Your task to perform on an android device: install app "Facebook" Image 0: 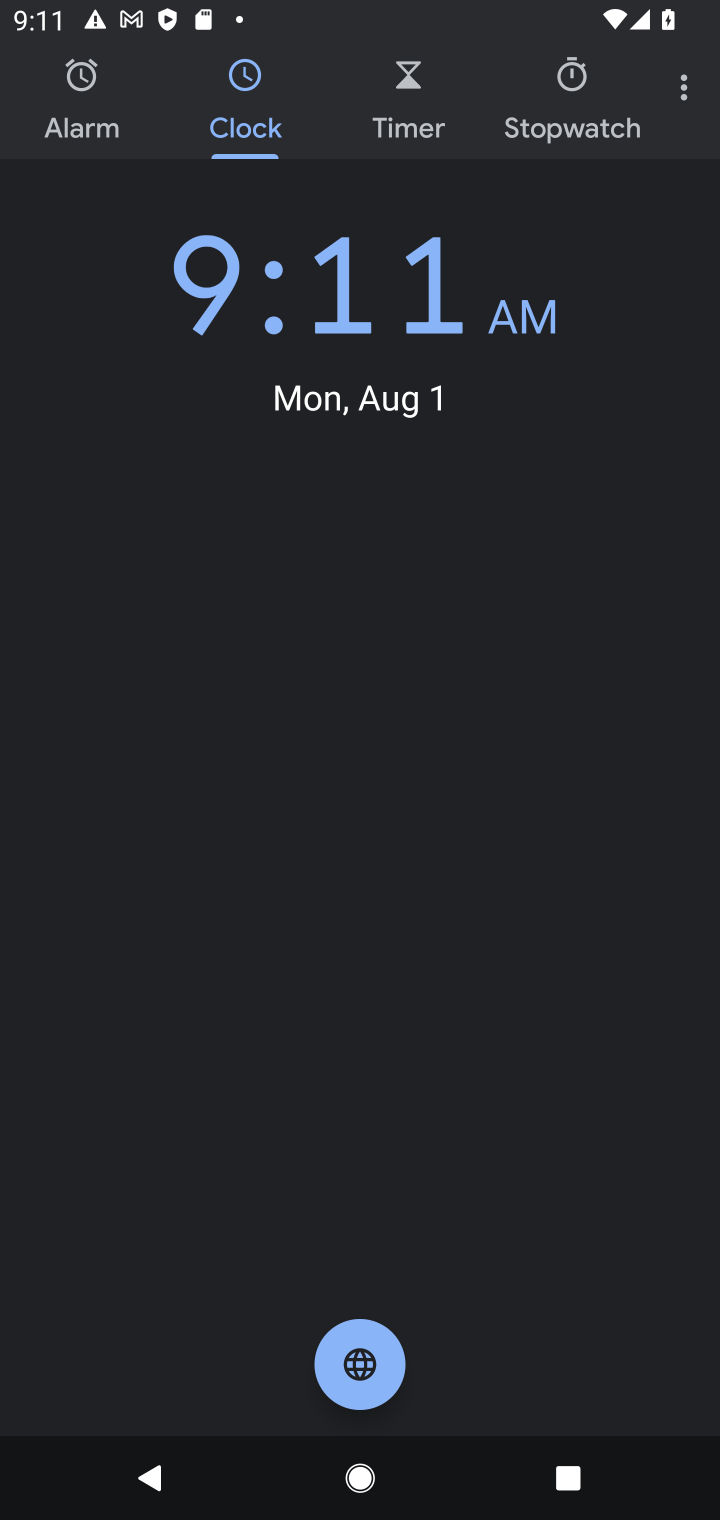
Step 0: press home button
Your task to perform on an android device: install app "Facebook" Image 1: 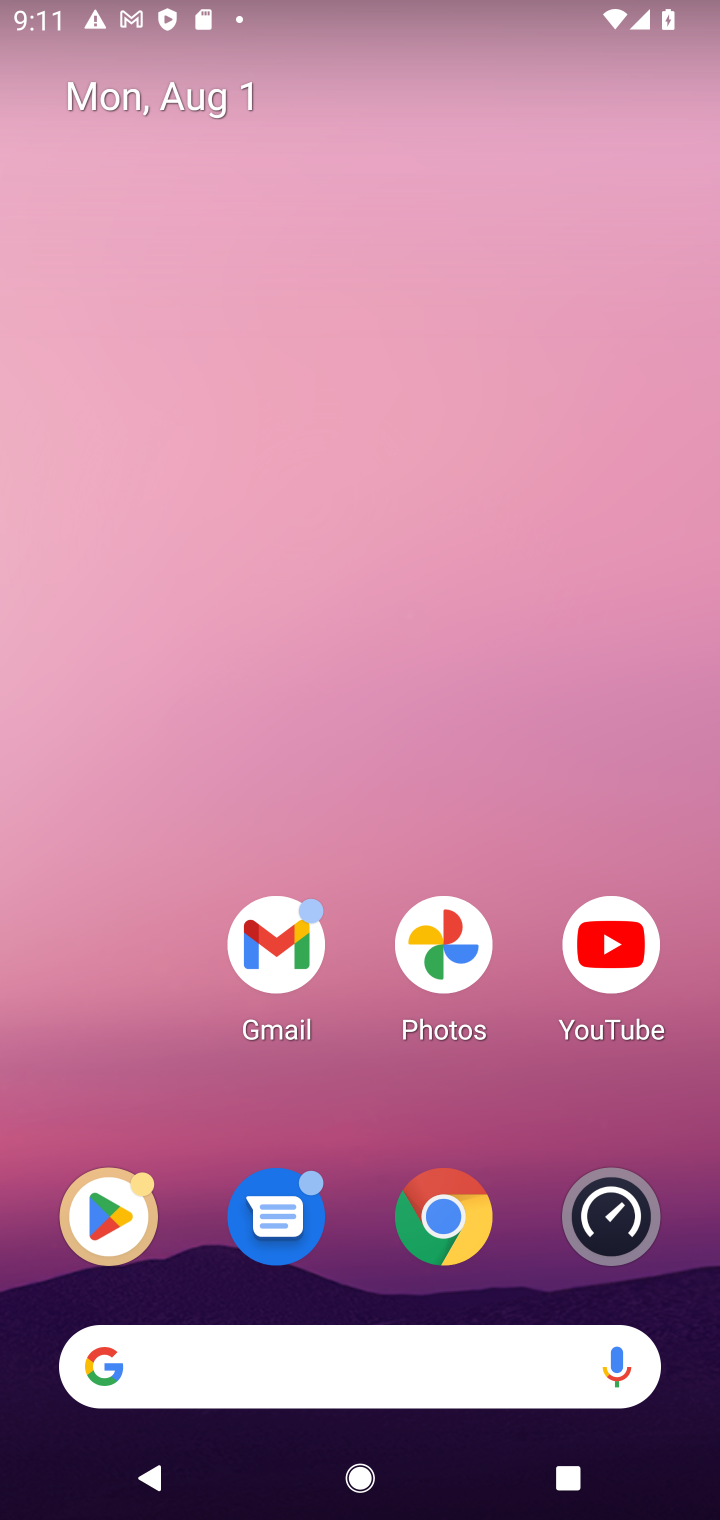
Step 1: click (119, 1233)
Your task to perform on an android device: install app "Facebook" Image 2: 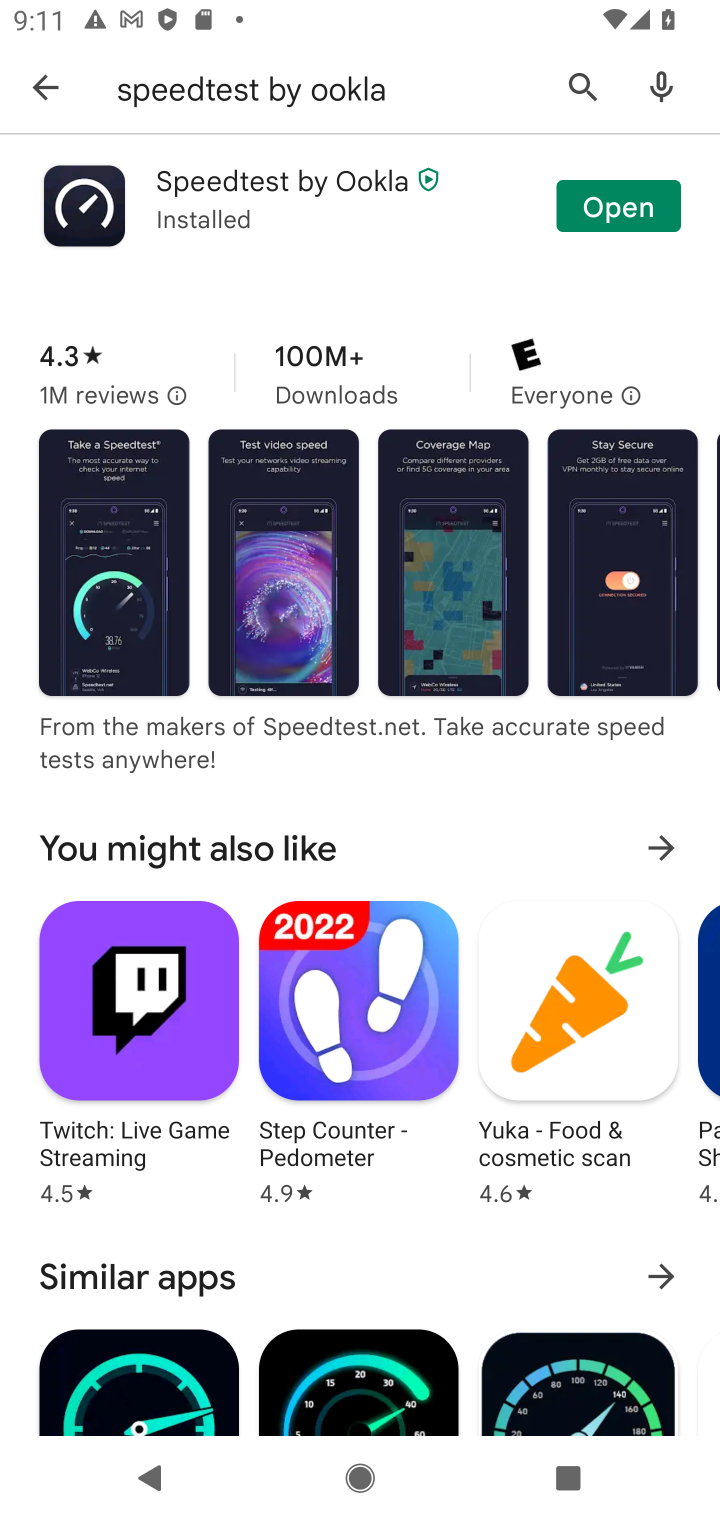
Step 2: click (571, 84)
Your task to perform on an android device: install app "Facebook" Image 3: 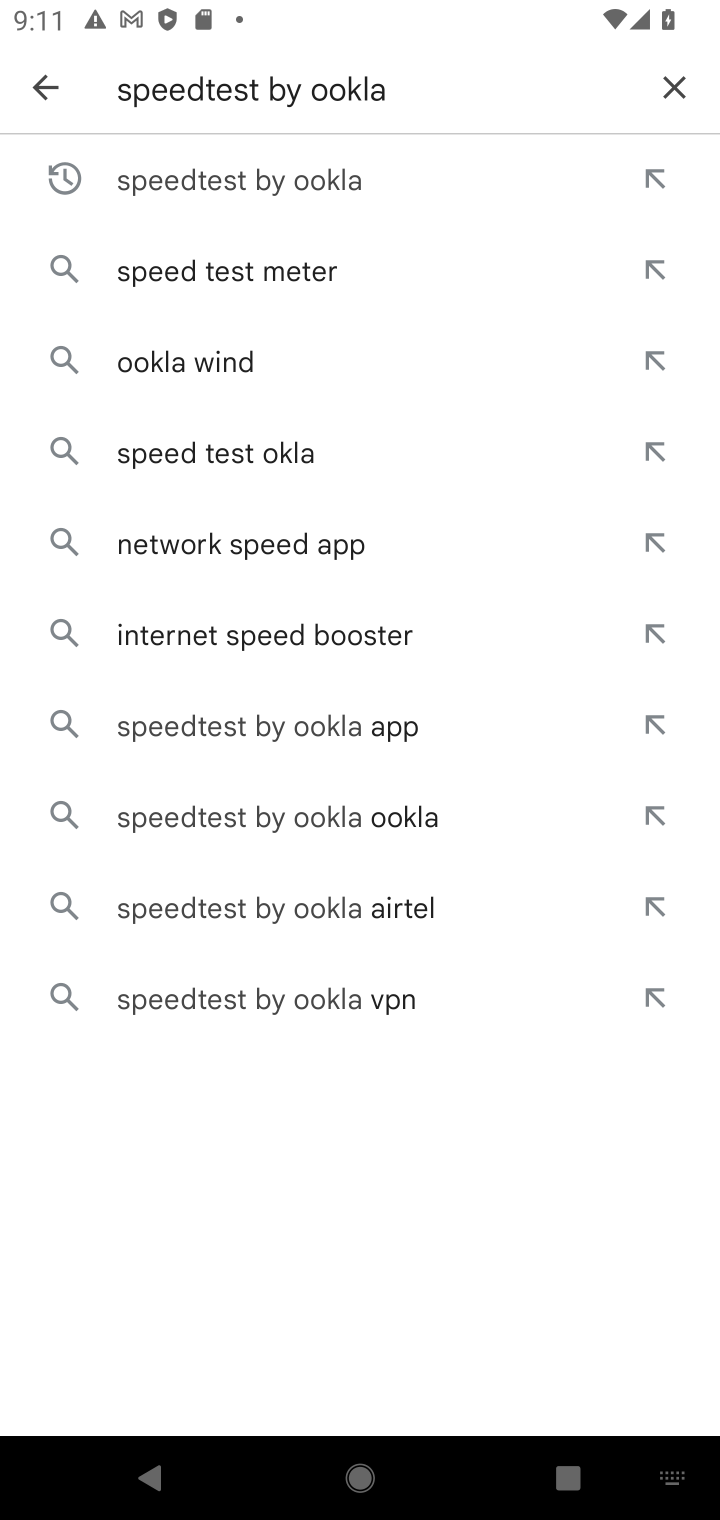
Step 3: click (674, 90)
Your task to perform on an android device: install app "Facebook" Image 4: 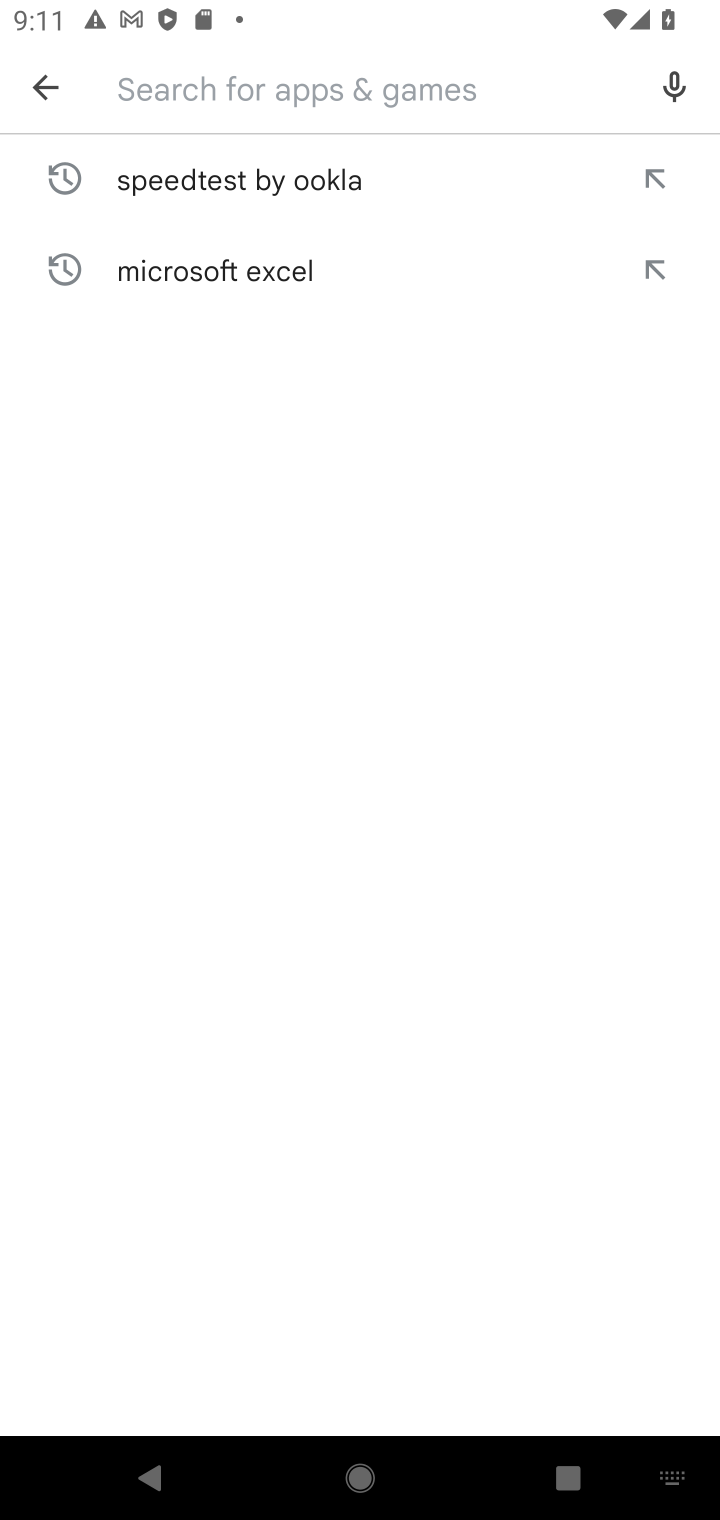
Step 4: type "Facebook"
Your task to perform on an android device: install app "Facebook" Image 5: 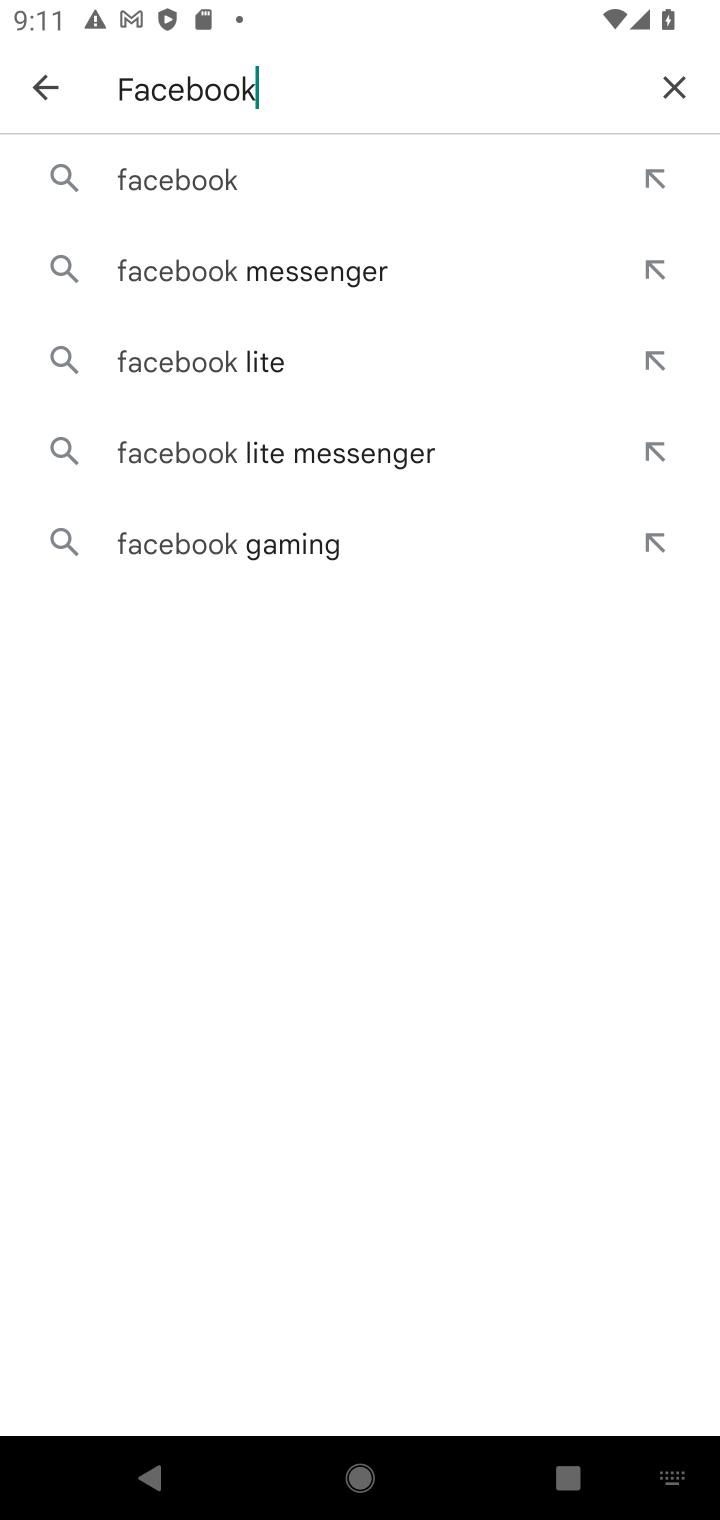
Step 5: click (179, 189)
Your task to perform on an android device: install app "Facebook" Image 6: 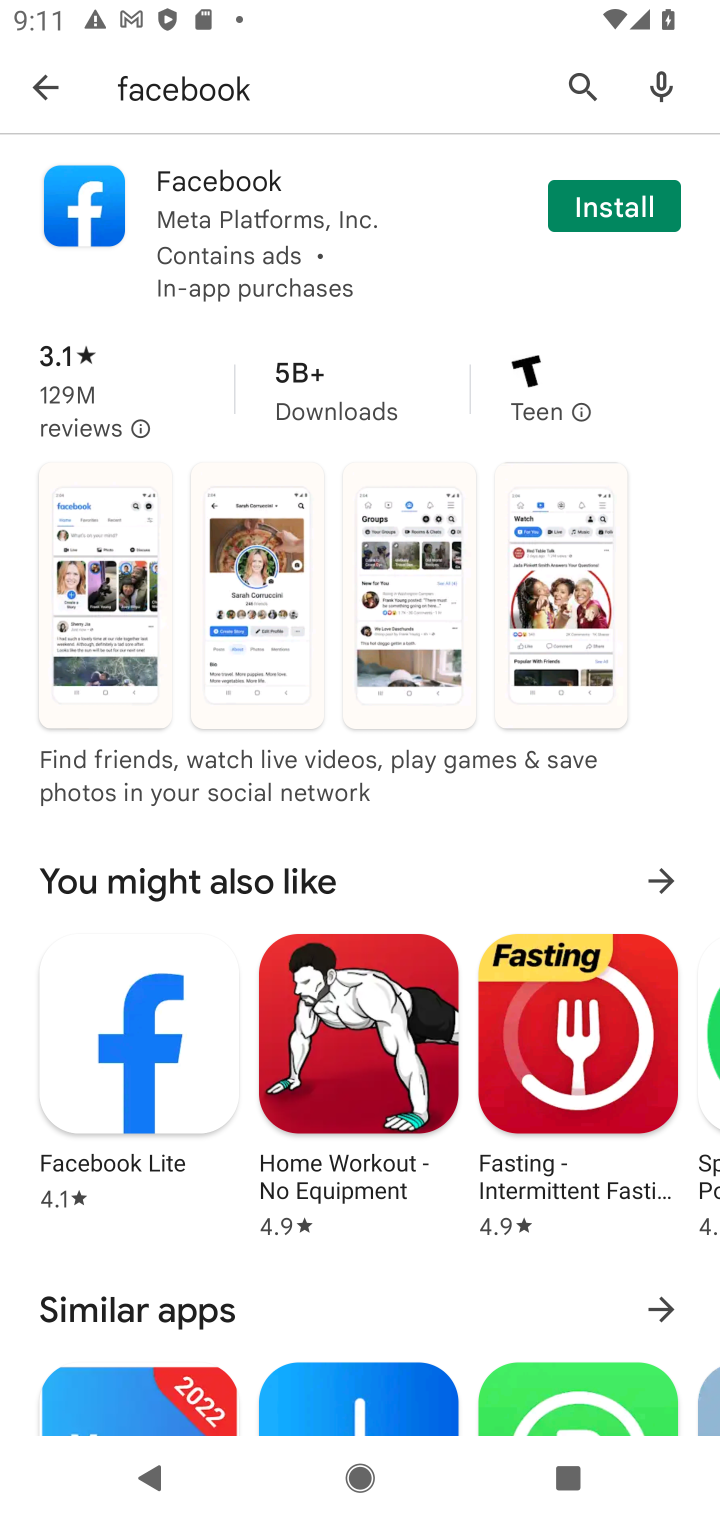
Step 6: click (595, 212)
Your task to perform on an android device: install app "Facebook" Image 7: 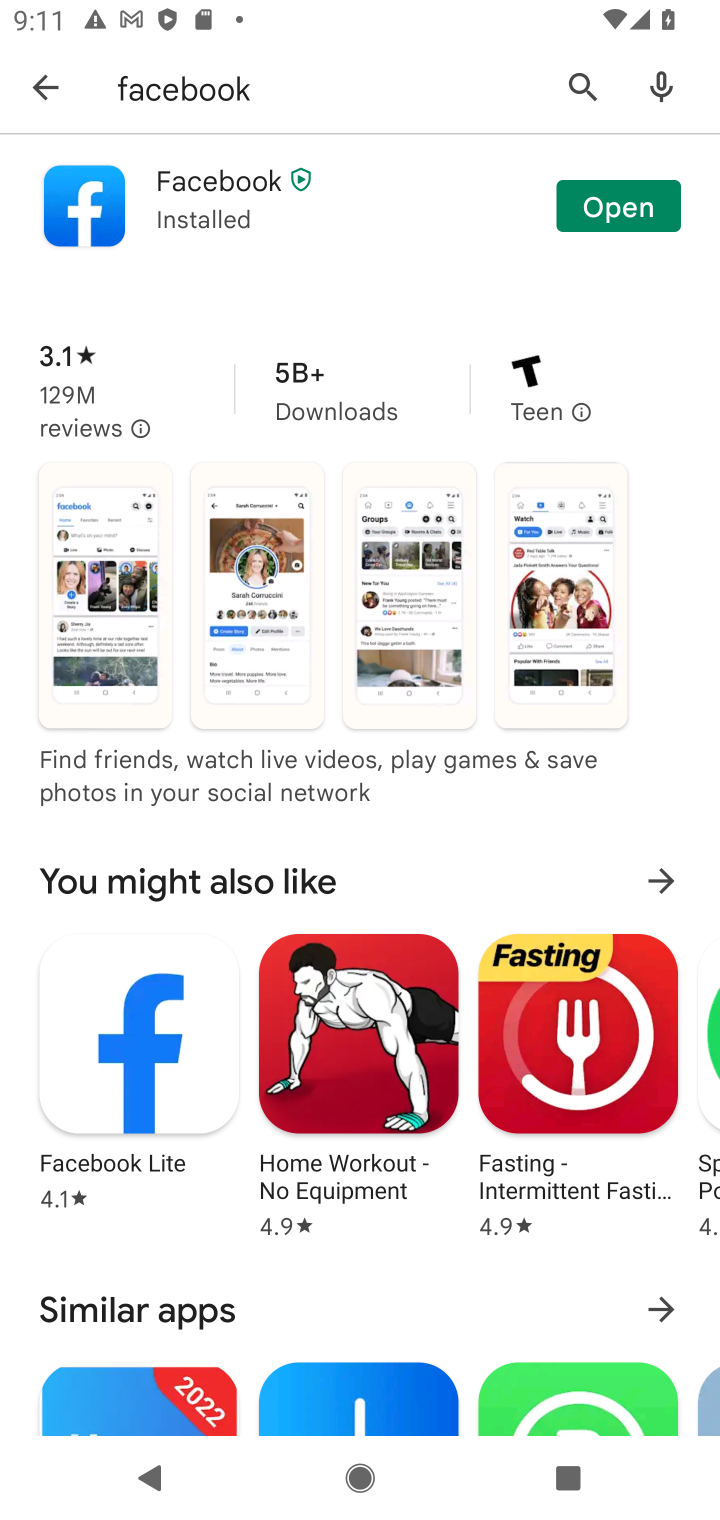
Step 7: task complete